Your task to perform on an android device: clear history in the chrome app Image 0: 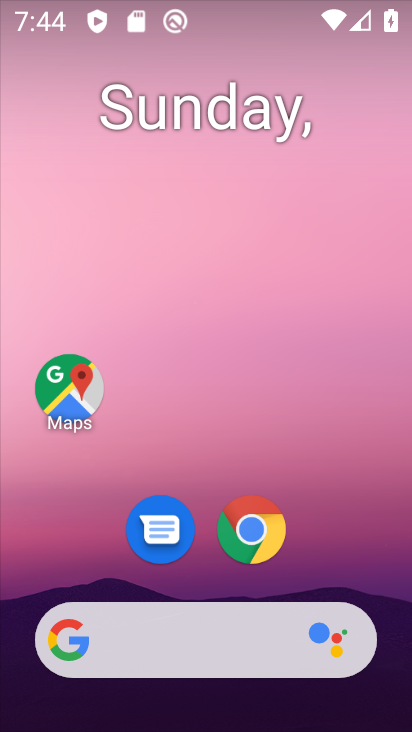
Step 0: click (242, 532)
Your task to perform on an android device: clear history in the chrome app Image 1: 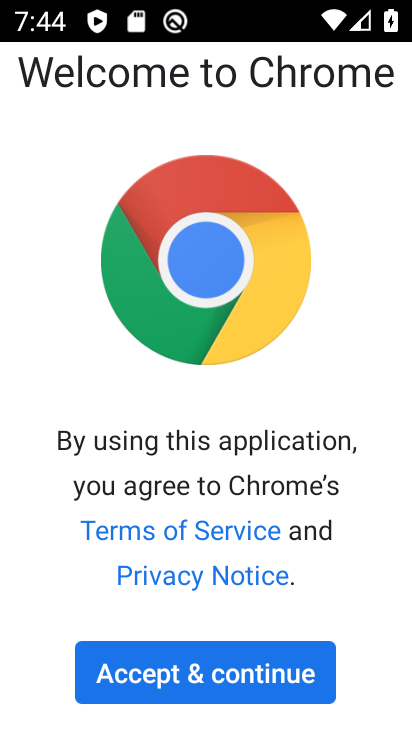
Step 1: click (308, 697)
Your task to perform on an android device: clear history in the chrome app Image 2: 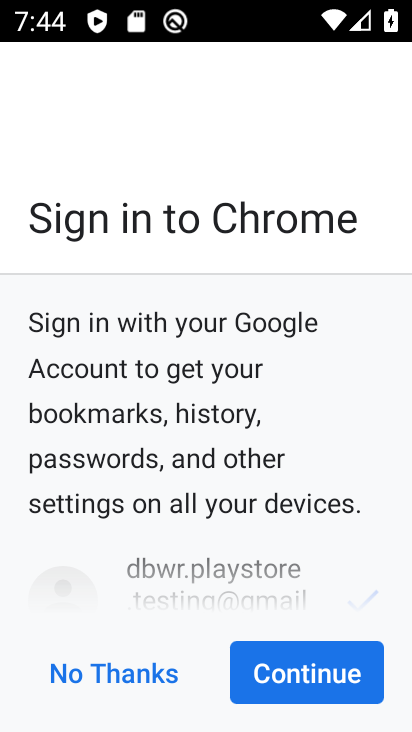
Step 2: click (363, 657)
Your task to perform on an android device: clear history in the chrome app Image 3: 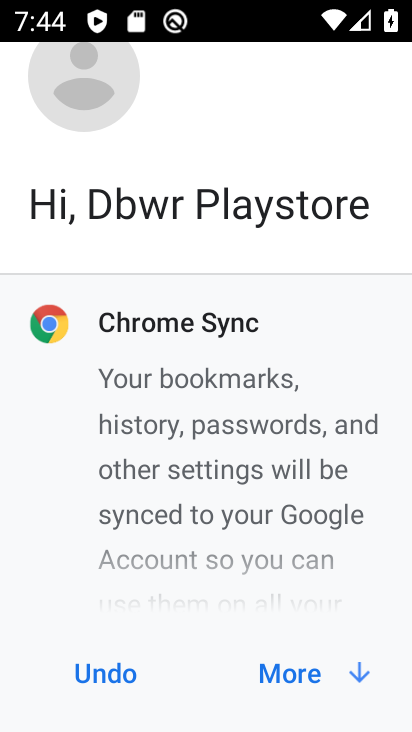
Step 3: click (334, 666)
Your task to perform on an android device: clear history in the chrome app Image 4: 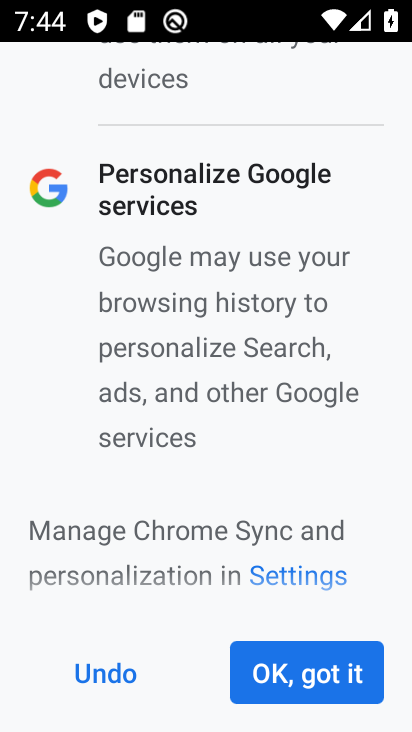
Step 4: click (334, 666)
Your task to perform on an android device: clear history in the chrome app Image 5: 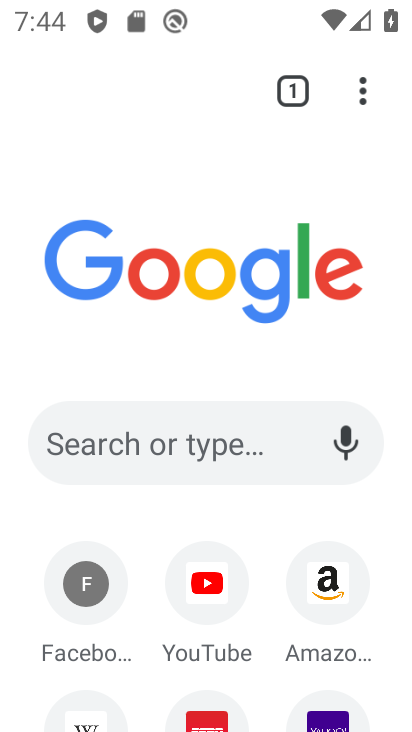
Step 5: click (368, 81)
Your task to perform on an android device: clear history in the chrome app Image 6: 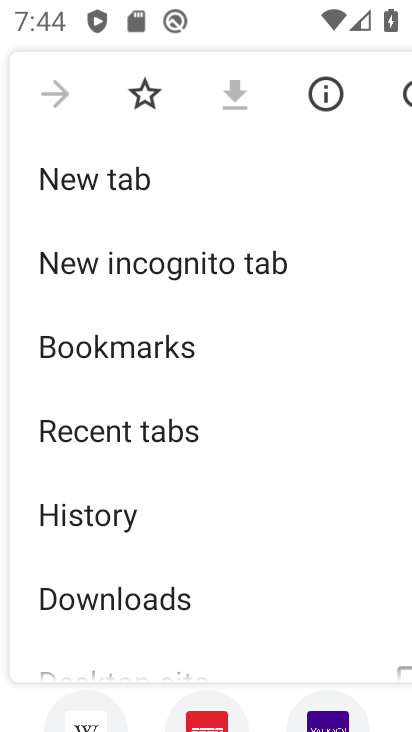
Step 6: click (159, 508)
Your task to perform on an android device: clear history in the chrome app Image 7: 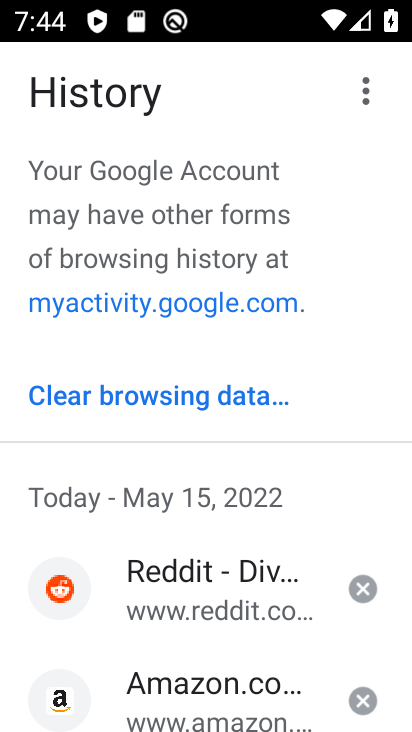
Step 7: click (178, 402)
Your task to perform on an android device: clear history in the chrome app Image 8: 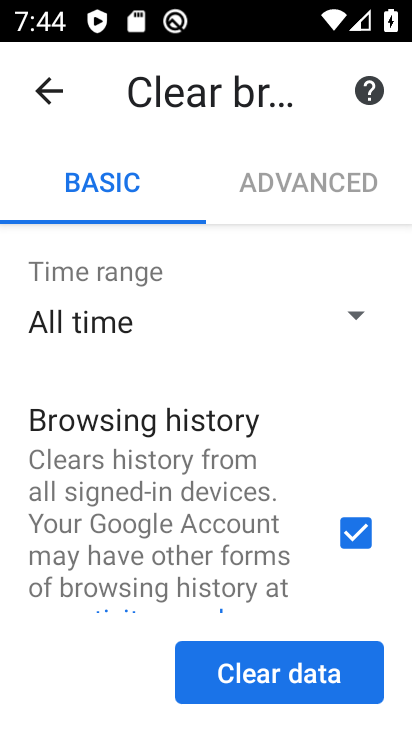
Step 8: click (362, 676)
Your task to perform on an android device: clear history in the chrome app Image 9: 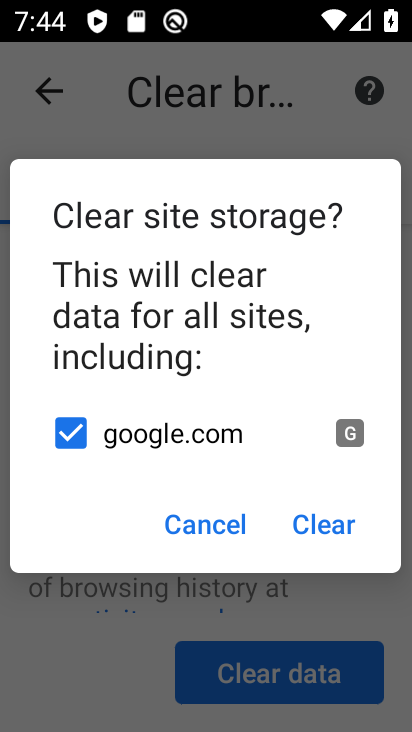
Step 9: click (341, 524)
Your task to perform on an android device: clear history in the chrome app Image 10: 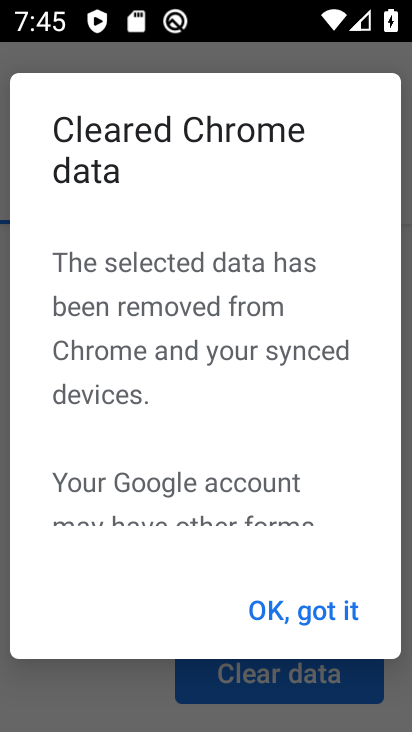
Step 10: click (329, 618)
Your task to perform on an android device: clear history in the chrome app Image 11: 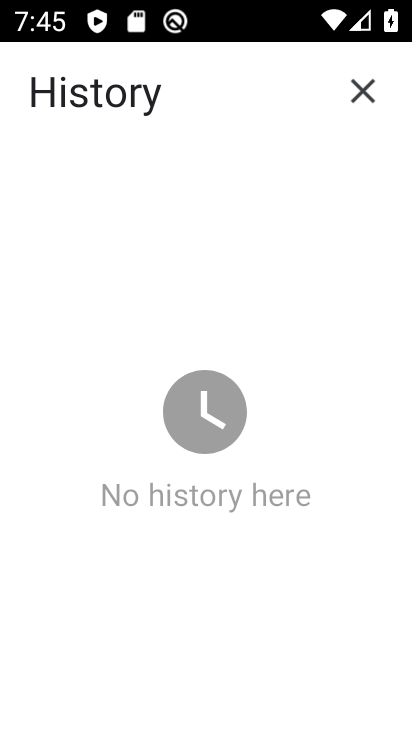
Step 11: press home button
Your task to perform on an android device: clear history in the chrome app Image 12: 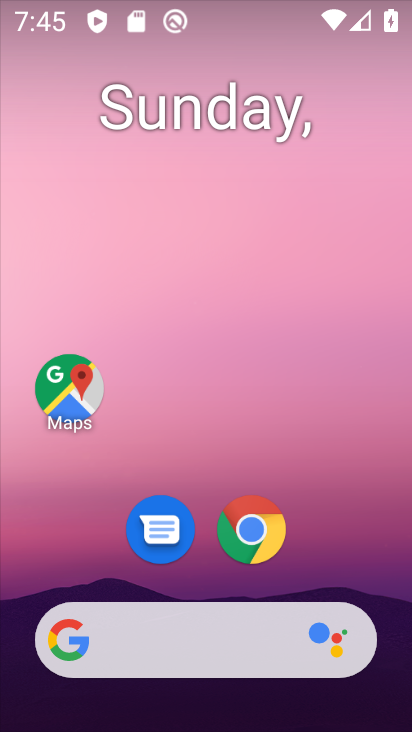
Step 12: click (255, 520)
Your task to perform on an android device: clear history in the chrome app Image 13: 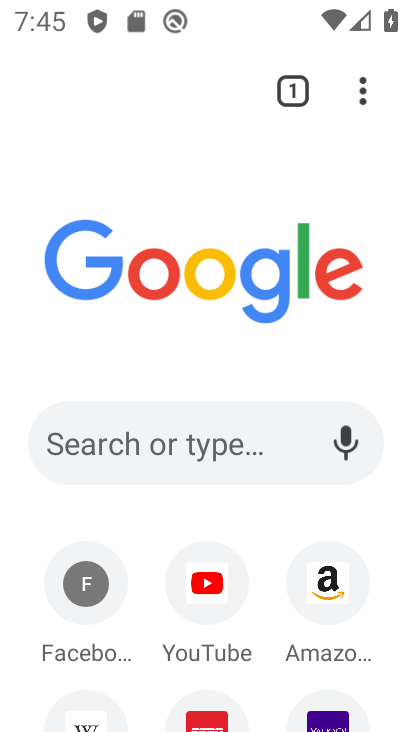
Step 13: click (375, 70)
Your task to perform on an android device: clear history in the chrome app Image 14: 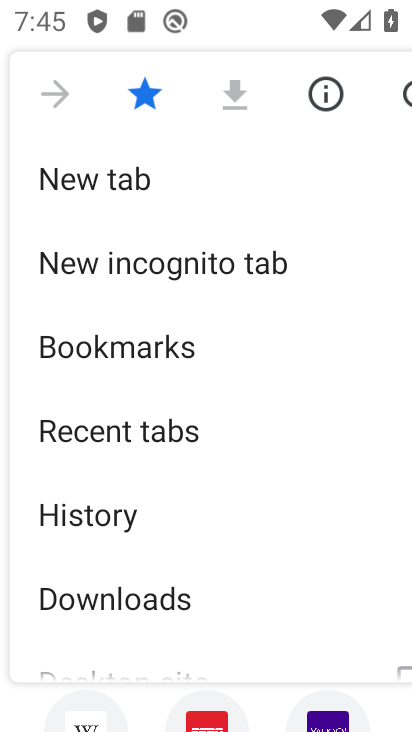
Step 14: click (231, 511)
Your task to perform on an android device: clear history in the chrome app Image 15: 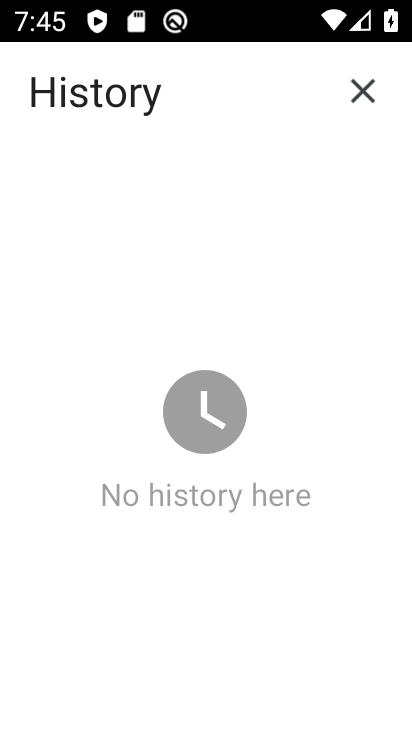
Step 15: task complete